Your task to perform on an android device: turn on location history Image 0: 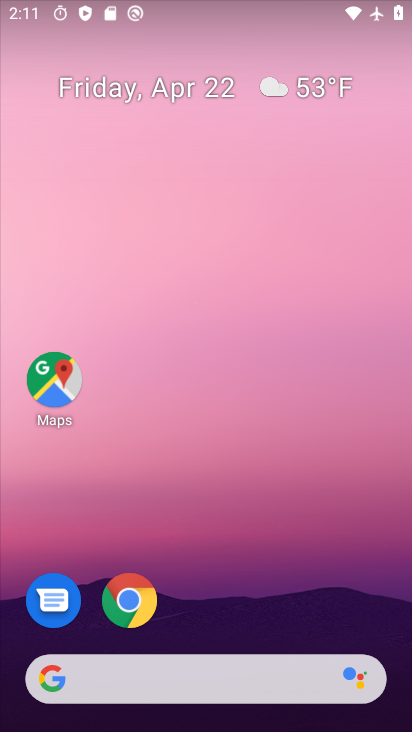
Step 0: drag from (216, 726) to (213, 101)
Your task to perform on an android device: turn on location history Image 1: 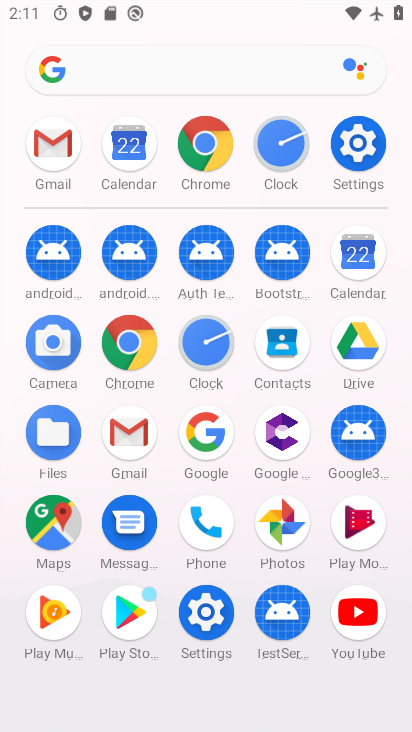
Step 1: click (364, 142)
Your task to perform on an android device: turn on location history Image 2: 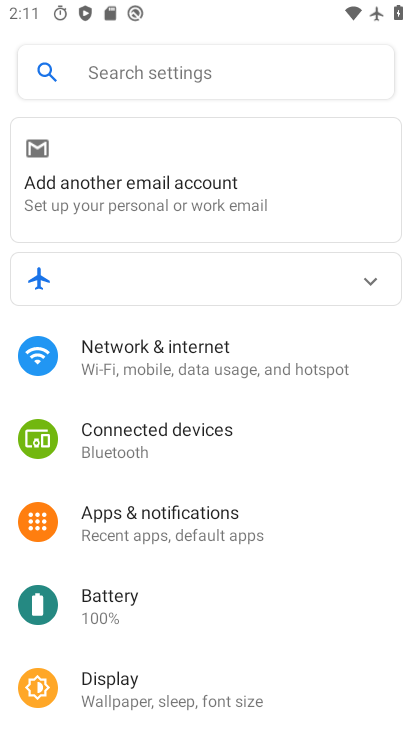
Step 2: drag from (136, 655) to (149, 267)
Your task to perform on an android device: turn on location history Image 3: 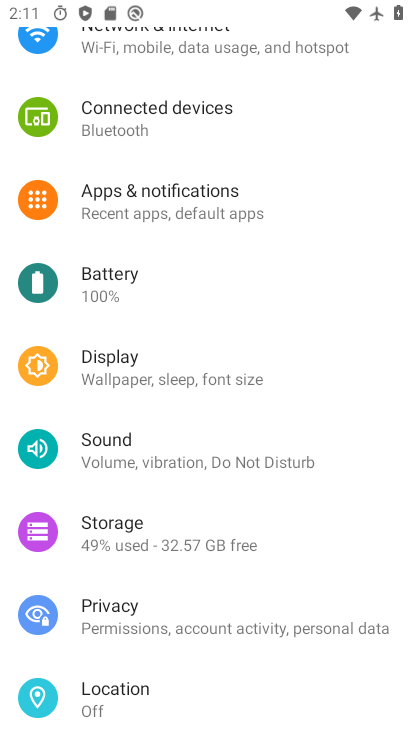
Step 3: click (108, 688)
Your task to perform on an android device: turn on location history Image 4: 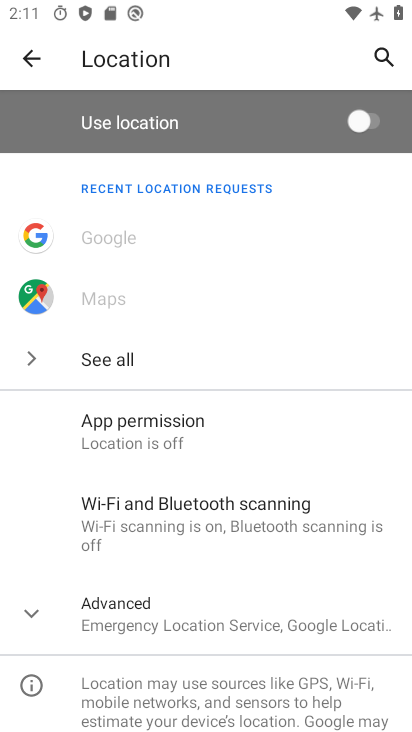
Step 4: click (170, 626)
Your task to perform on an android device: turn on location history Image 5: 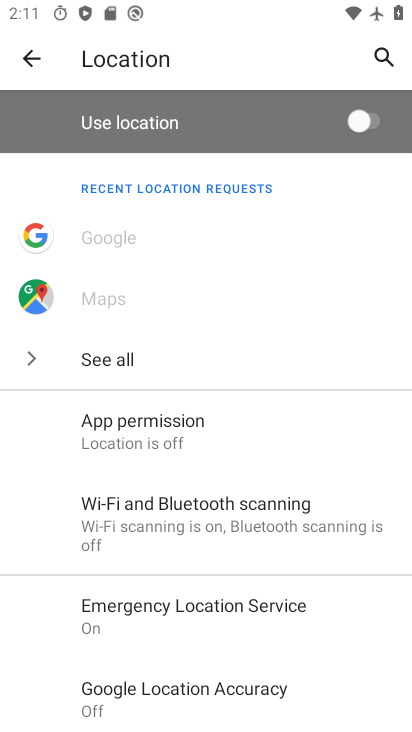
Step 5: drag from (211, 648) to (212, 302)
Your task to perform on an android device: turn on location history Image 6: 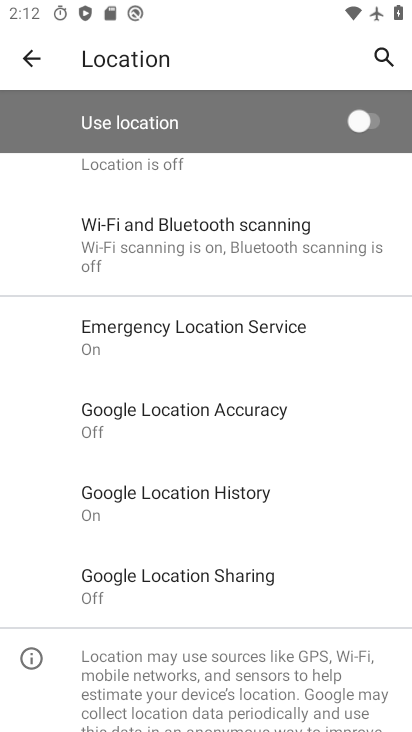
Step 6: click (186, 492)
Your task to perform on an android device: turn on location history Image 7: 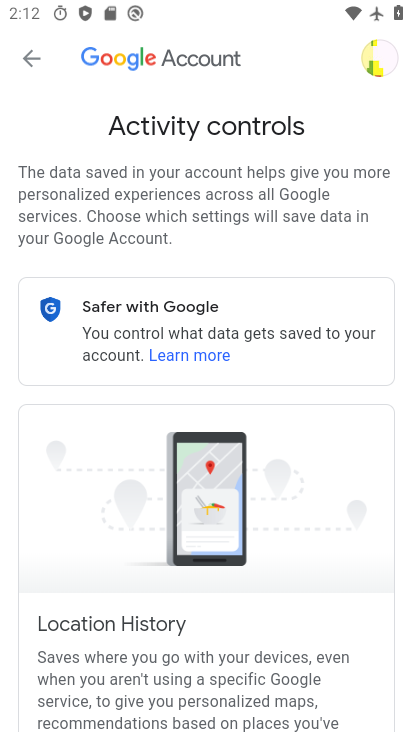
Step 7: task complete